Your task to perform on an android device: Open network settings Image 0: 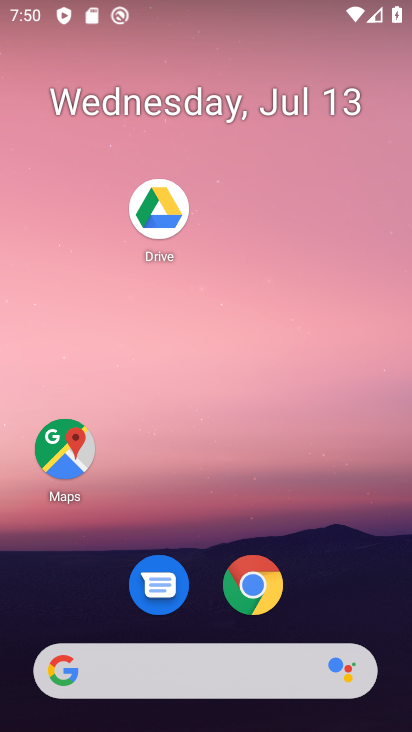
Step 0: drag from (215, 681) to (292, 127)
Your task to perform on an android device: Open network settings Image 1: 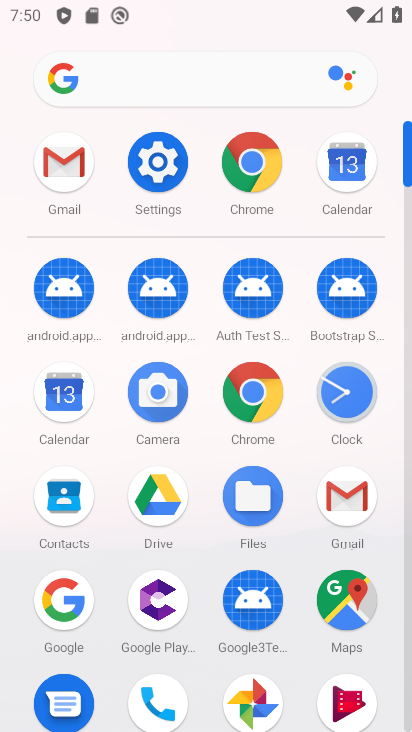
Step 1: click (160, 166)
Your task to perform on an android device: Open network settings Image 2: 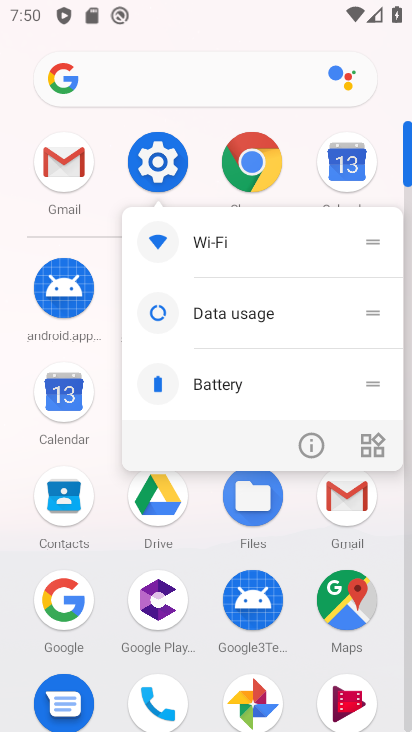
Step 2: click (156, 160)
Your task to perform on an android device: Open network settings Image 3: 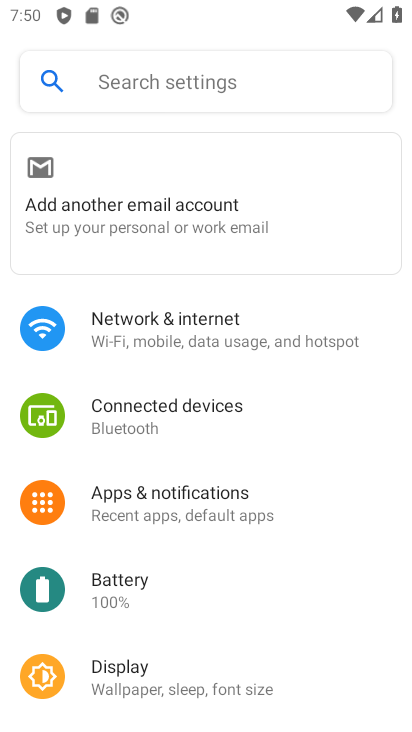
Step 3: click (155, 323)
Your task to perform on an android device: Open network settings Image 4: 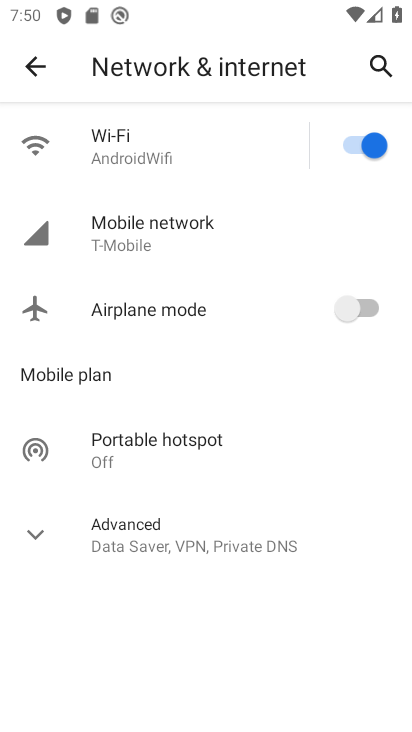
Step 4: click (186, 230)
Your task to perform on an android device: Open network settings Image 5: 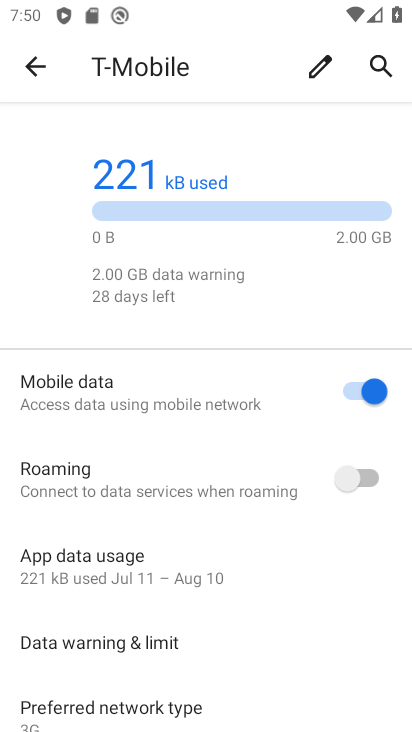
Step 5: task complete